Your task to perform on an android device: star an email in the gmail app Image 0: 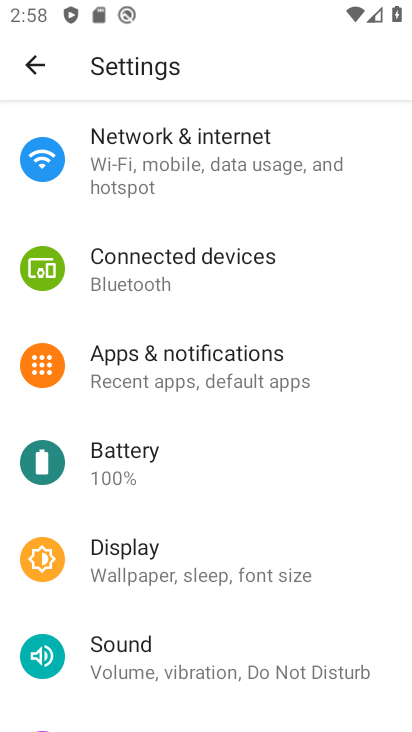
Step 0: press home button
Your task to perform on an android device: star an email in the gmail app Image 1: 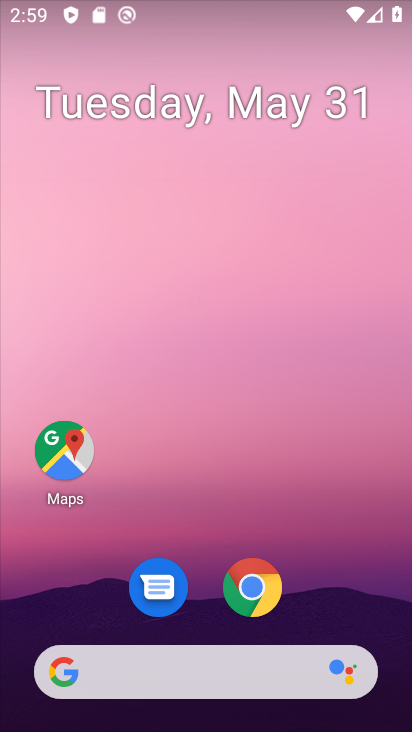
Step 1: drag from (320, 619) to (325, 7)
Your task to perform on an android device: star an email in the gmail app Image 2: 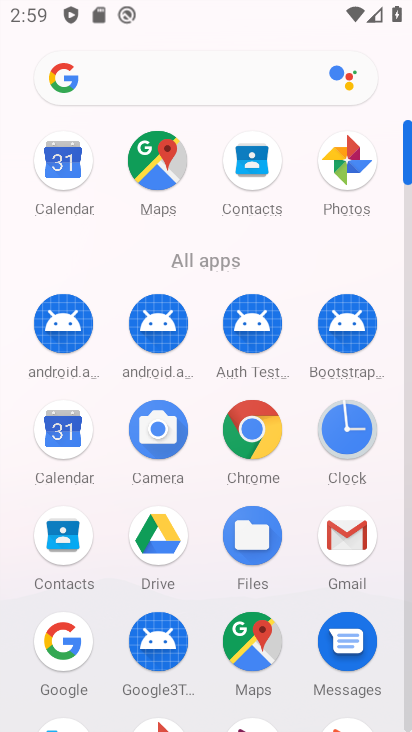
Step 2: click (347, 536)
Your task to perform on an android device: star an email in the gmail app Image 3: 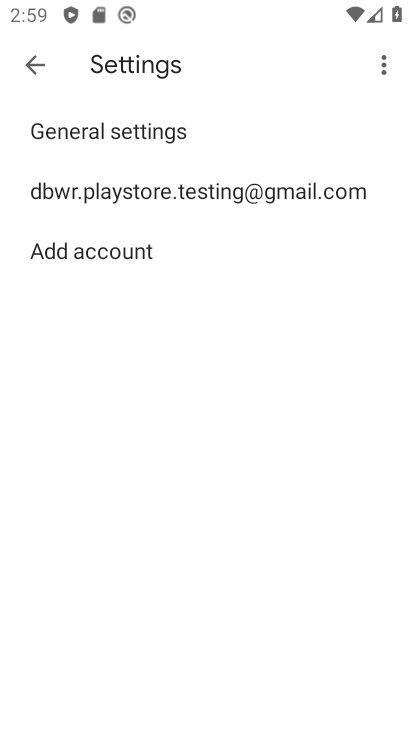
Step 3: click (24, 66)
Your task to perform on an android device: star an email in the gmail app Image 4: 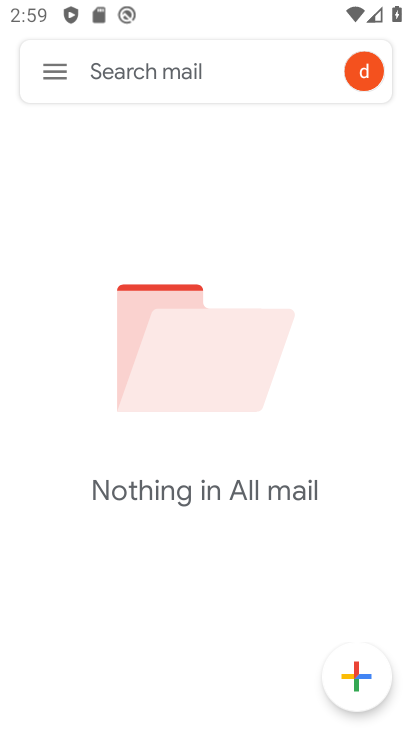
Step 4: task complete